Your task to perform on an android device: Go to display settings Image 0: 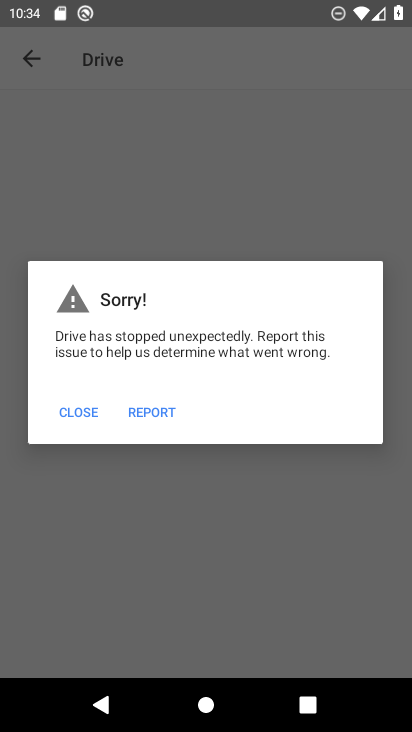
Step 0: press home button
Your task to perform on an android device: Go to display settings Image 1: 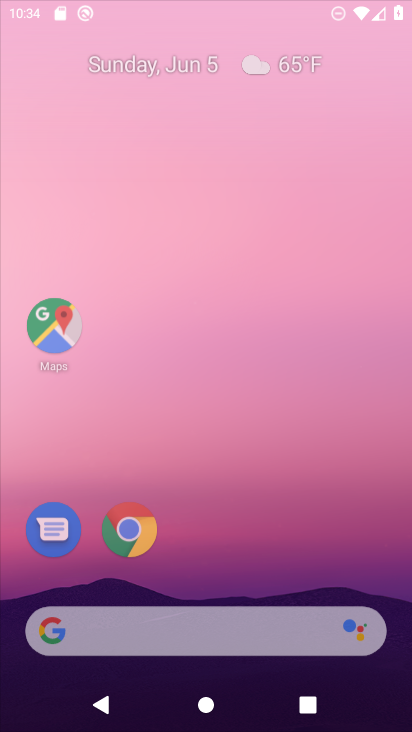
Step 1: drag from (234, 600) to (252, 175)
Your task to perform on an android device: Go to display settings Image 2: 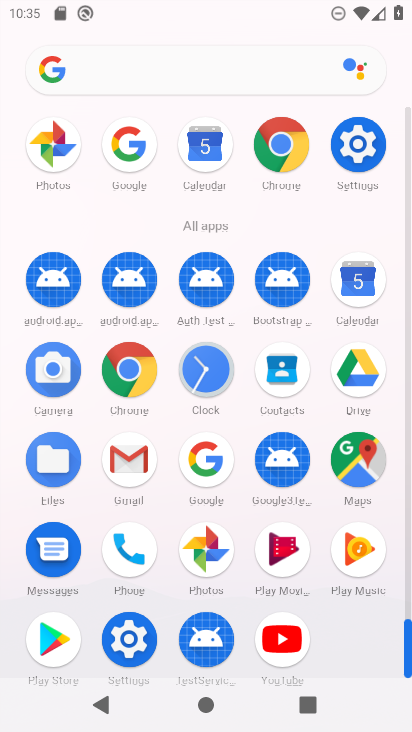
Step 2: click (121, 638)
Your task to perform on an android device: Go to display settings Image 3: 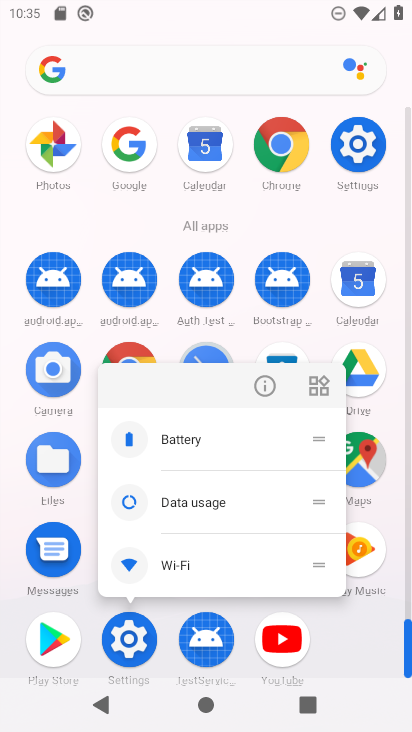
Step 3: click (269, 383)
Your task to perform on an android device: Go to display settings Image 4: 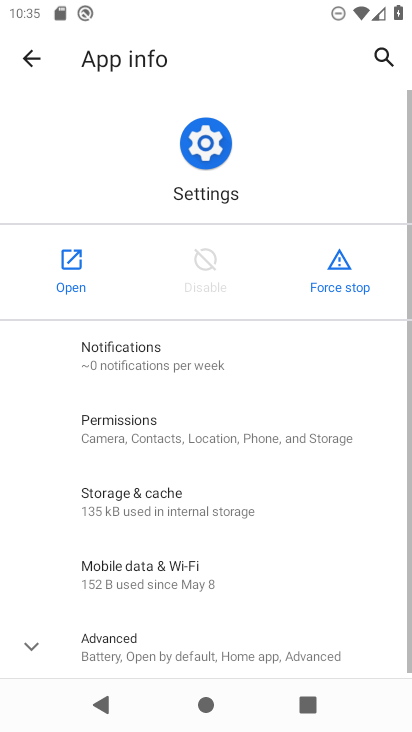
Step 4: click (67, 262)
Your task to perform on an android device: Go to display settings Image 5: 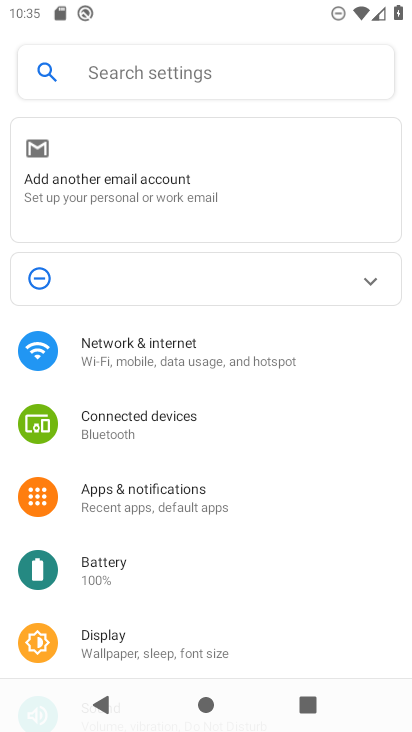
Step 5: drag from (209, 566) to (291, 39)
Your task to perform on an android device: Go to display settings Image 6: 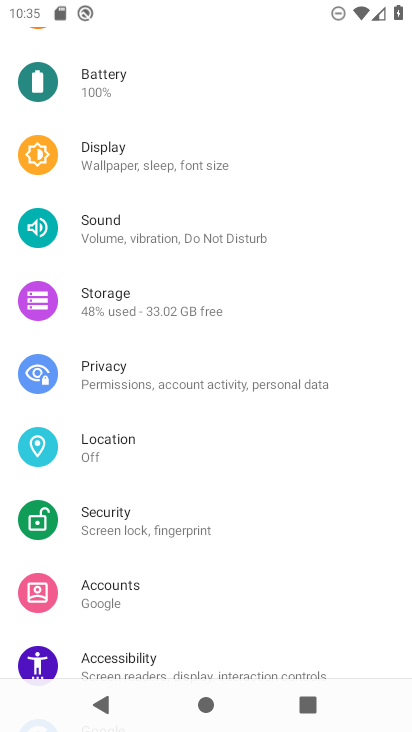
Step 6: click (155, 165)
Your task to perform on an android device: Go to display settings Image 7: 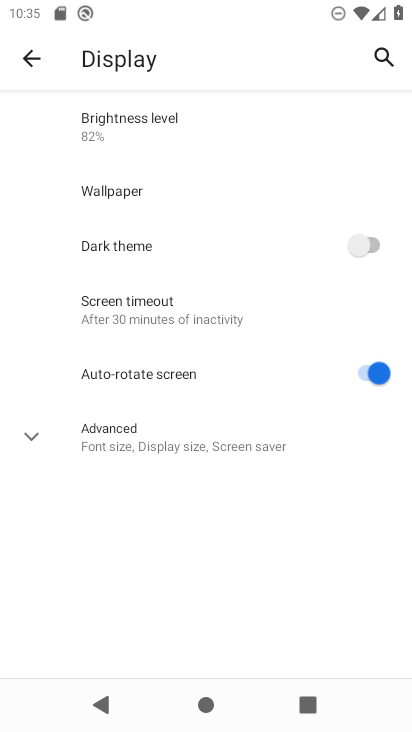
Step 7: task complete